Your task to perform on an android device: make emails show in primary in the gmail app Image 0: 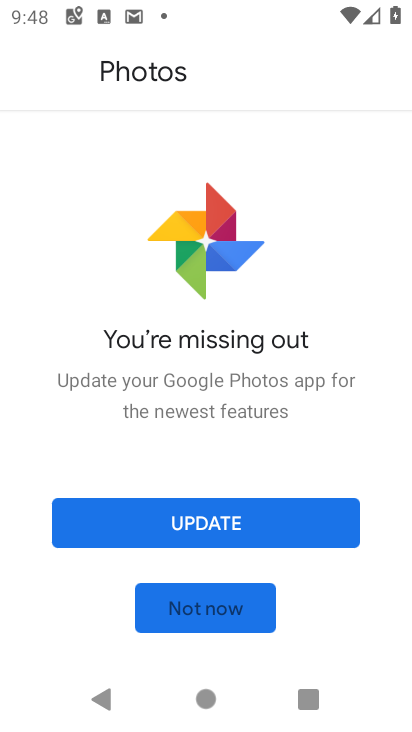
Step 0: press home button
Your task to perform on an android device: make emails show in primary in the gmail app Image 1: 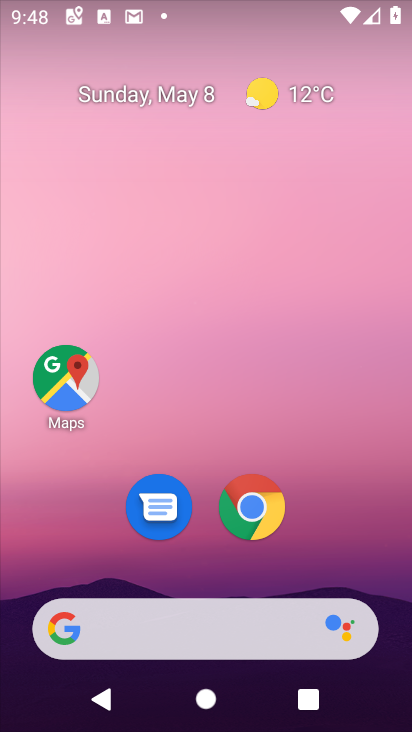
Step 1: drag from (266, 716) to (330, 111)
Your task to perform on an android device: make emails show in primary in the gmail app Image 2: 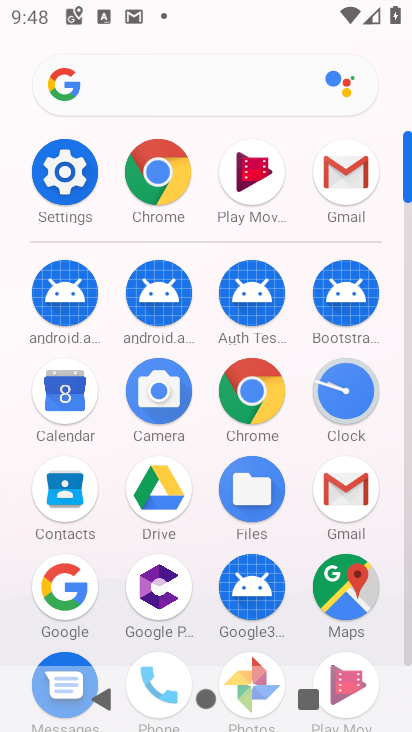
Step 2: click (347, 499)
Your task to perform on an android device: make emails show in primary in the gmail app Image 3: 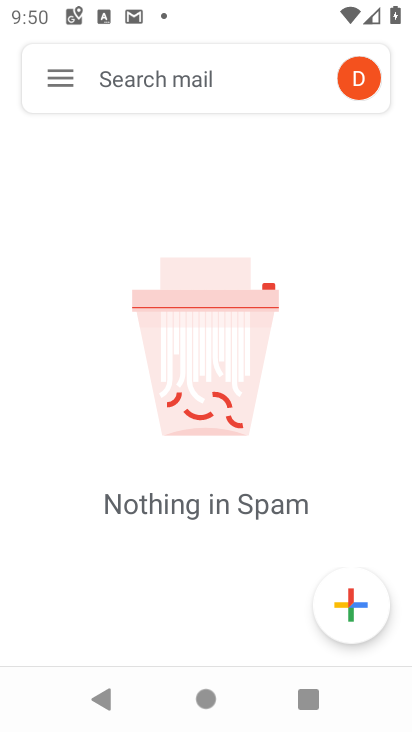
Step 3: click (45, 75)
Your task to perform on an android device: make emails show in primary in the gmail app Image 4: 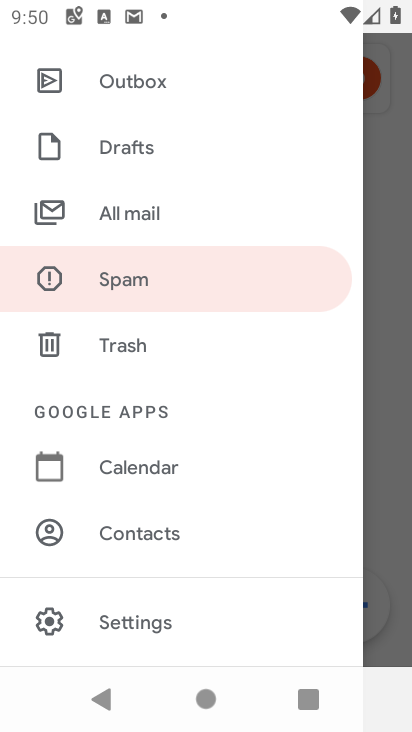
Step 4: click (152, 639)
Your task to perform on an android device: make emails show in primary in the gmail app Image 5: 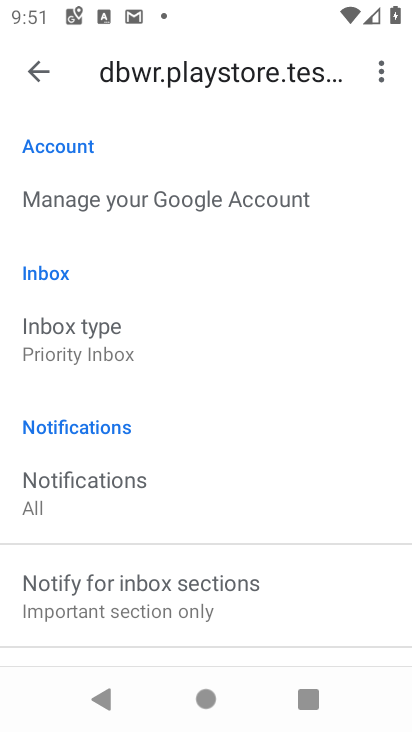
Step 5: click (102, 331)
Your task to perform on an android device: make emails show in primary in the gmail app Image 6: 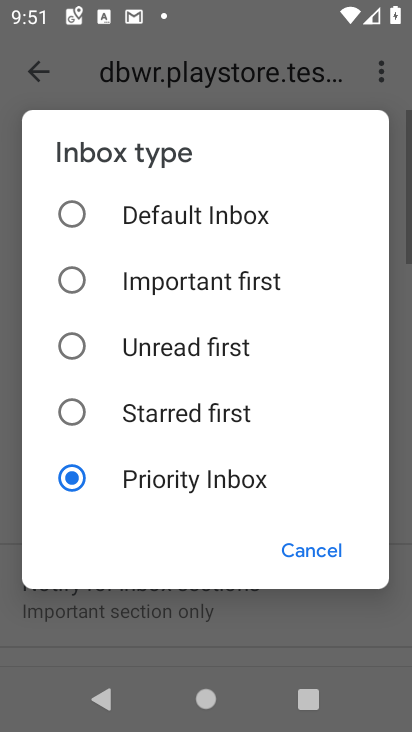
Step 6: click (184, 206)
Your task to perform on an android device: make emails show in primary in the gmail app Image 7: 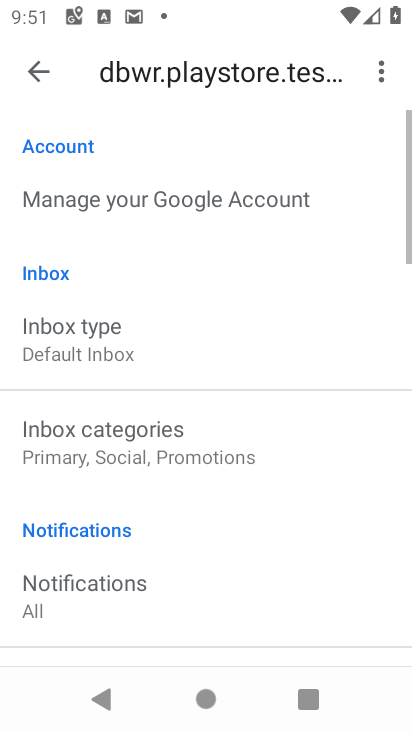
Step 7: click (146, 450)
Your task to perform on an android device: make emails show in primary in the gmail app Image 8: 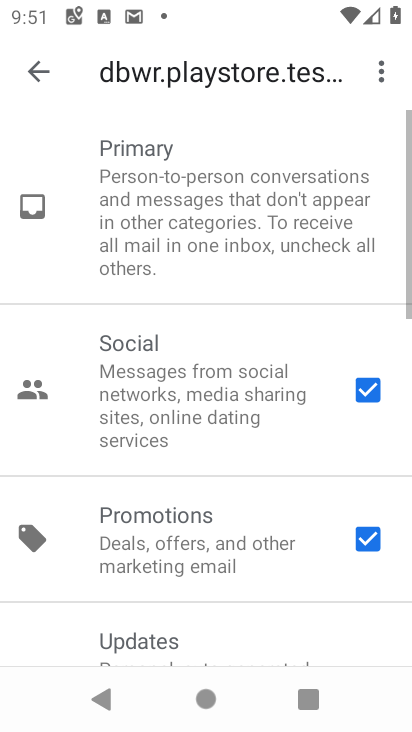
Step 8: click (374, 387)
Your task to perform on an android device: make emails show in primary in the gmail app Image 9: 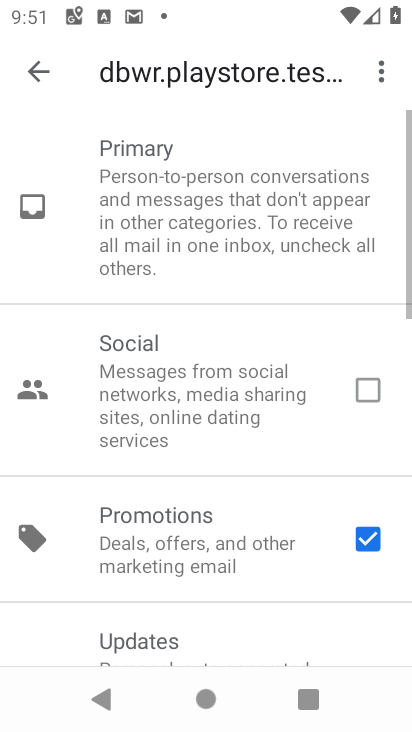
Step 9: click (363, 546)
Your task to perform on an android device: make emails show in primary in the gmail app Image 10: 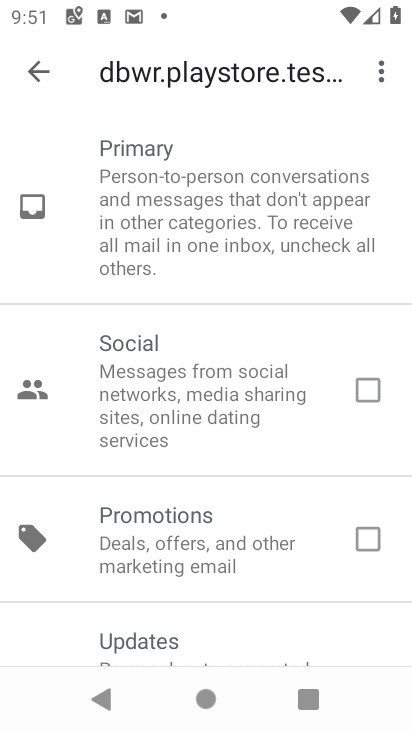
Step 10: task complete